Your task to perform on an android device: turn off translation in the chrome app Image 0: 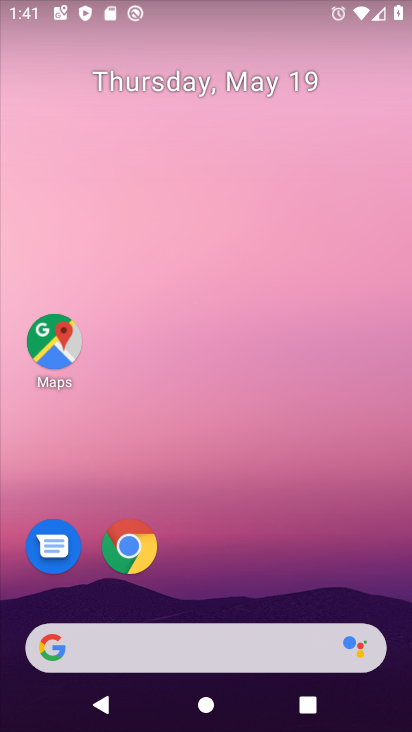
Step 0: click (124, 548)
Your task to perform on an android device: turn off translation in the chrome app Image 1: 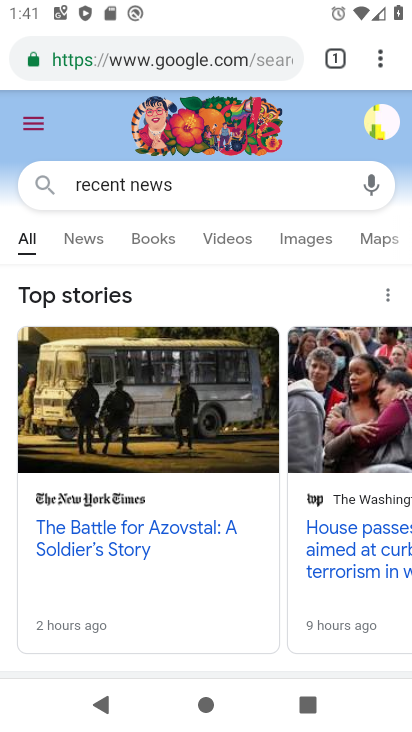
Step 1: click (379, 56)
Your task to perform on an android device: turn off translation in the chrome app Image 2: 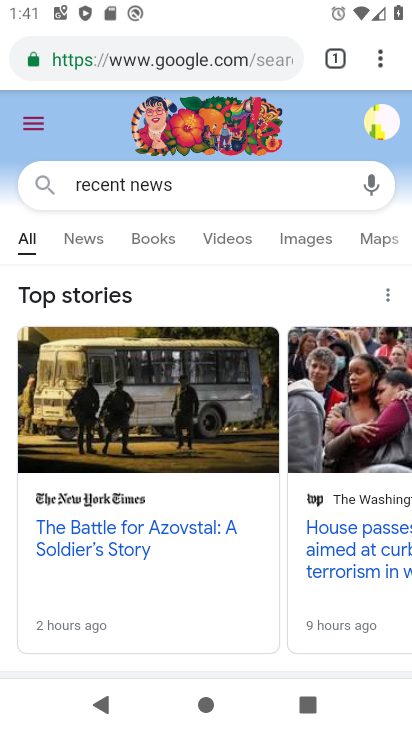
Step 2: click (379, 59)
Your task to perform on an android device: turn off translation in the chrome app Image 3: 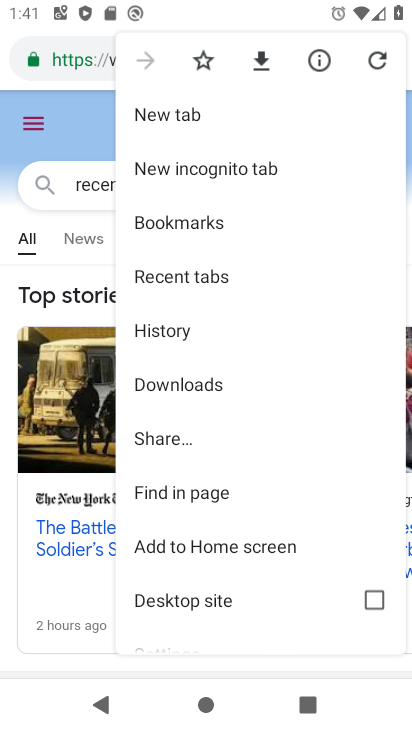
Step 3: drag from (231, 516) to (290, 156)
Your task to perform on an android device: turn off translation in the chrome app Image 4: 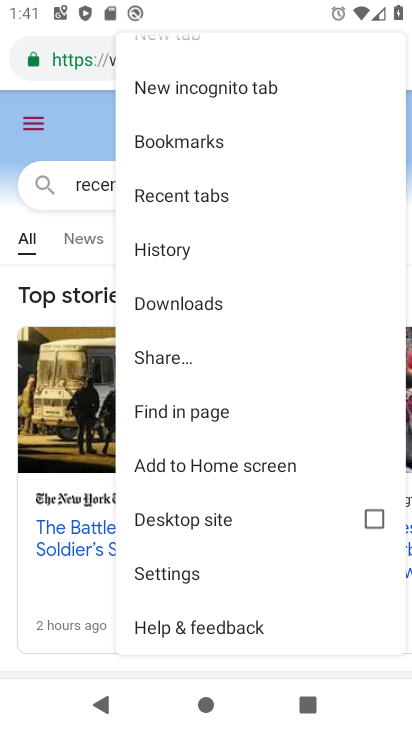
Step 4: click (168, 570)
Your task to perform on an android device: turn off translation in the chrome app Image 5: 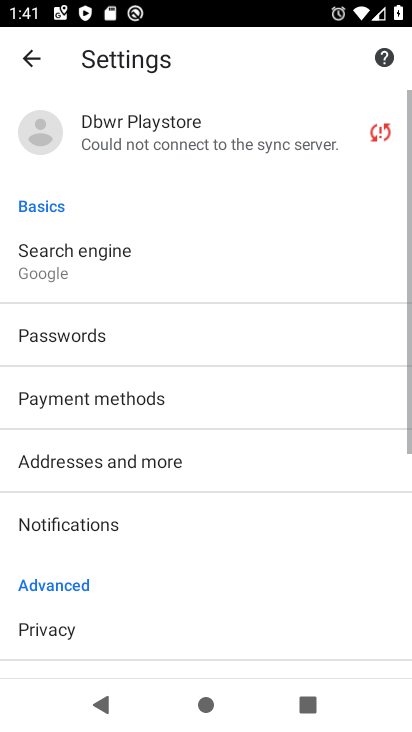
Step 5: drag from (68, 561) to (140, 269)
Your task to perform on an android device: turn off translation in the chrome app Image 6: 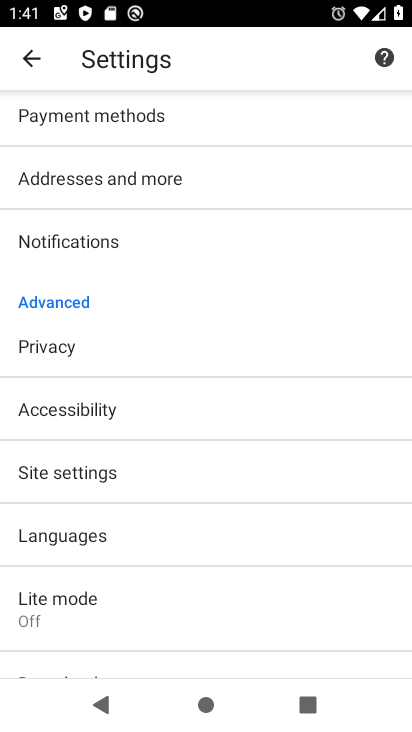
Step 6: click (71, 538)
Your task to perform on an android device: turn off translation in the chrome app Image 7: 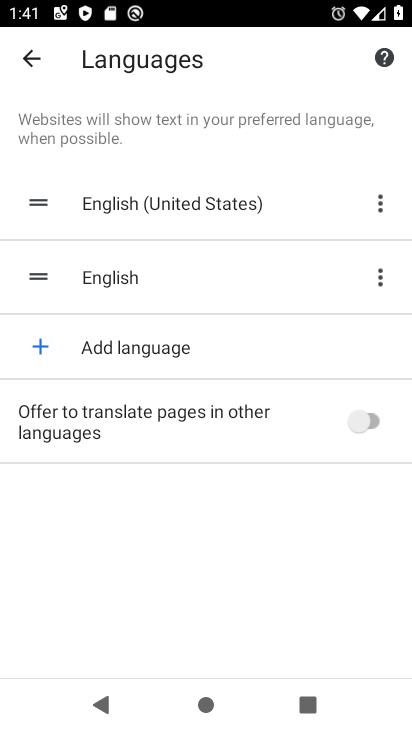
Step 7: task complete